Your task to perform on an android device: Open Maps and search for coffee Image 0: 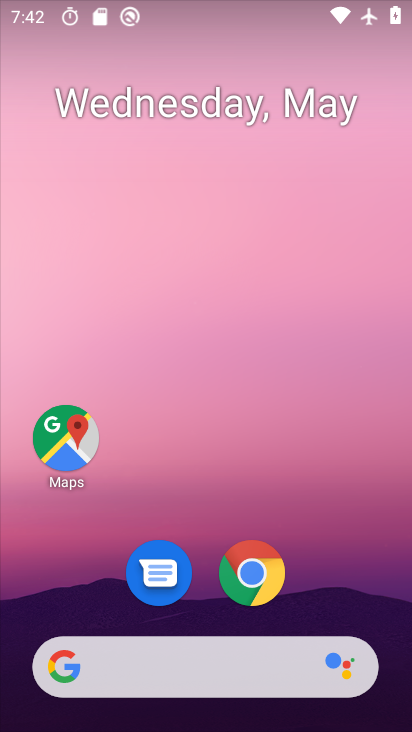
Step 0: click (66, 427)
Your task to perform on an android device: Open Maps and search for coffee Image 1: 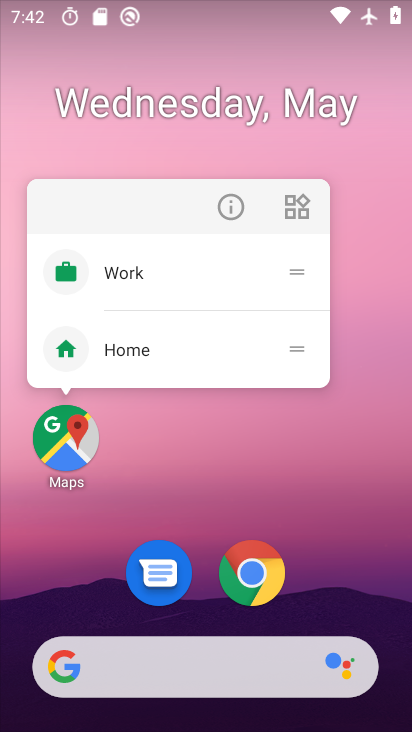
Step 1: click (66, 427)
Your task to perform on an android device: Open Maps and search for coffee Image 2: 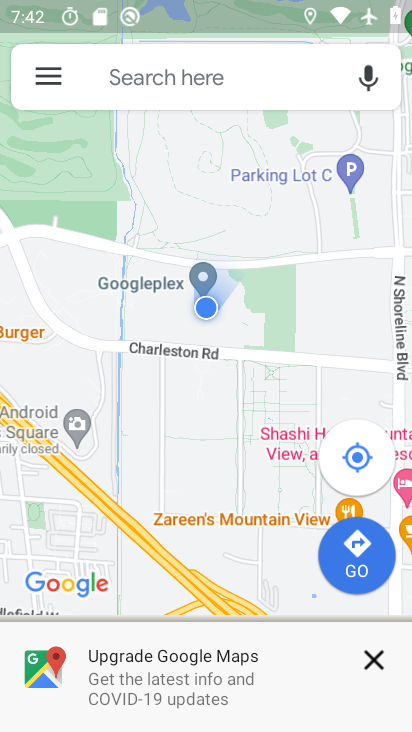
Step 2: click (210, 74)
Your task to perform on an android device: Open Maps and search for coffee Image 3: 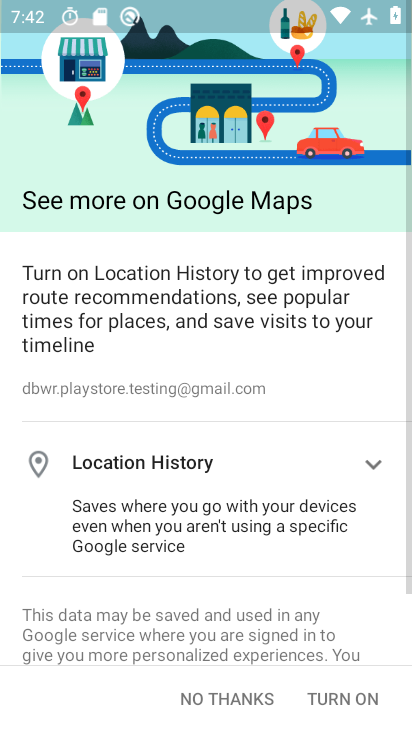
Step 3: click (254, 688)
Your task to perform on an android device: Open Maps and search for coffee Image 4: 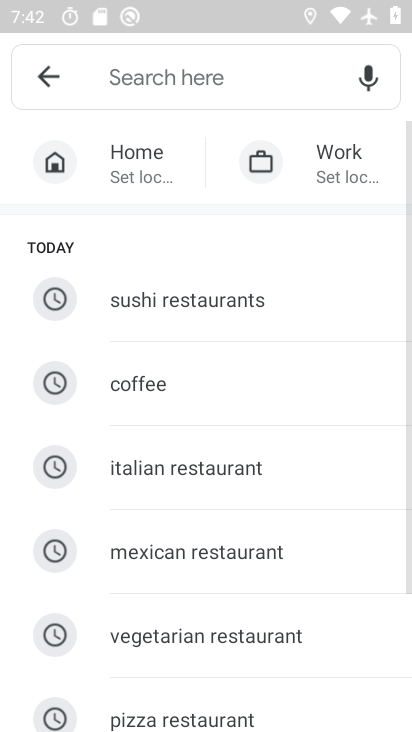
Step 4: click (146, 63)
Your task to perform on an android device: Open Maps and search for coffee Image 5: 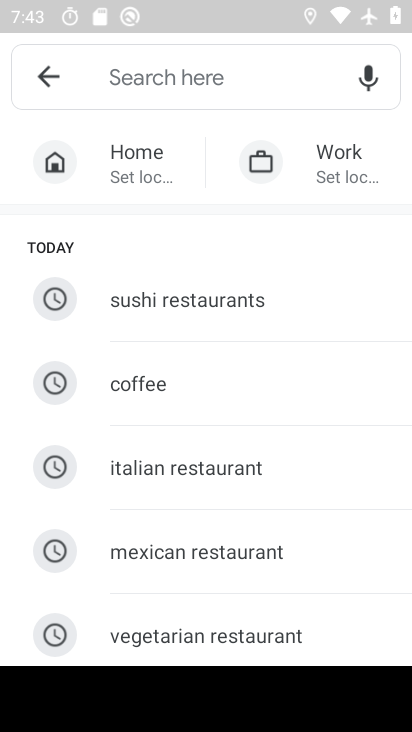
Step 5: type "coffee"
Your task to perform on an android device: Open Maps and search for coffee Image 6: 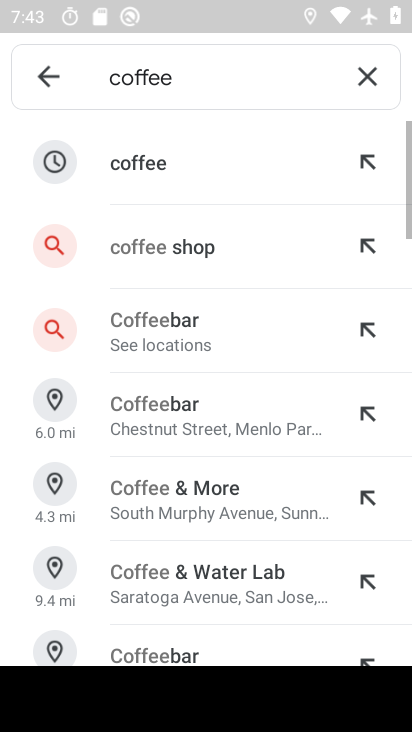
Step 6: click (127, 168)
Your task to perform on an android device: Open Maps and search for coffee Image 7: 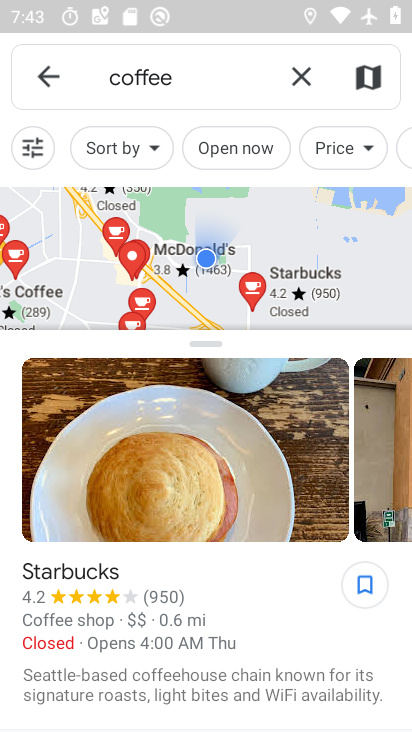
Step 7: task complete